Your task to perform on an android device: turn on the 24-hour format for clock Image 0: 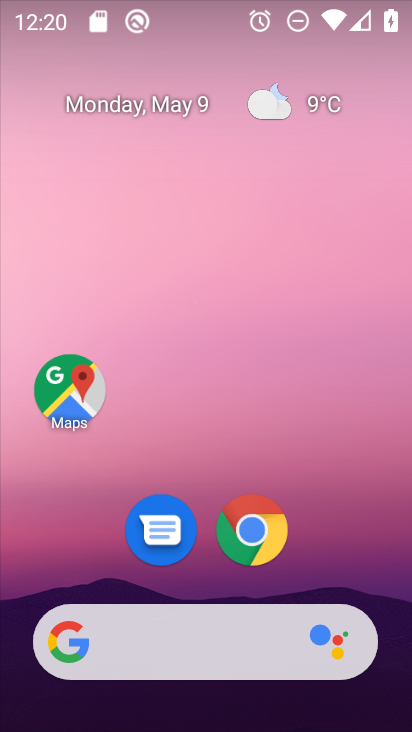
Step 0: drag from (187, 587) to (290, 83)
Your task to perform on an android device: turn on the 24-hour format for clock Image 1: 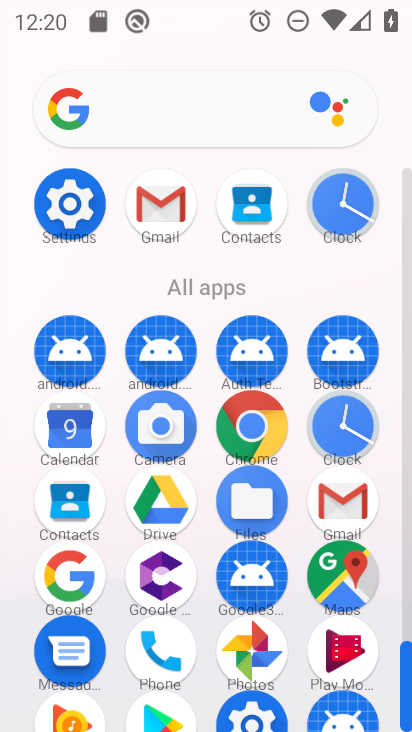
Step 1: click (341, 200)
Your task to perform on an android device: turn on the 24-hour format for clock Image 2: 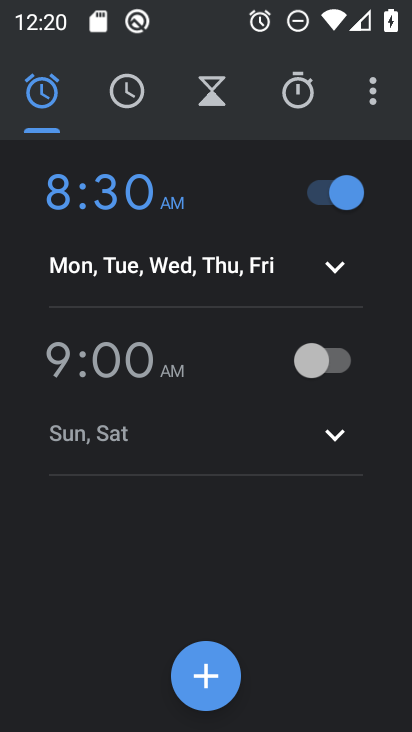
Step 2: click (394, 98)
Your task to perform on an android device: turn on the 24-hour format for clock Image 3: 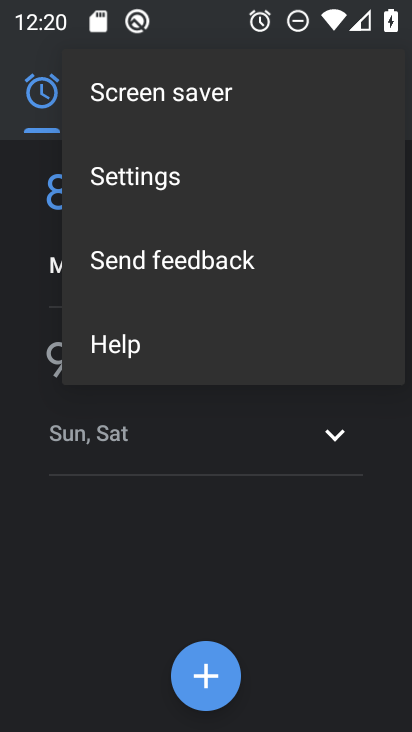
Step 3: click (273, 177)
Your task to perform on an android device: turn on the 24-hour format for clock Image 4: 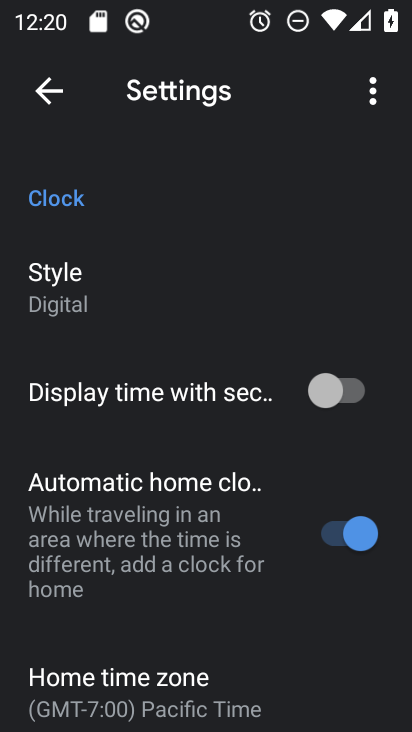
Step 4: drag from (163, 605) to (243, 218)
Your task to perform on an android device: turn on the 24-hour format for clock Image 5: 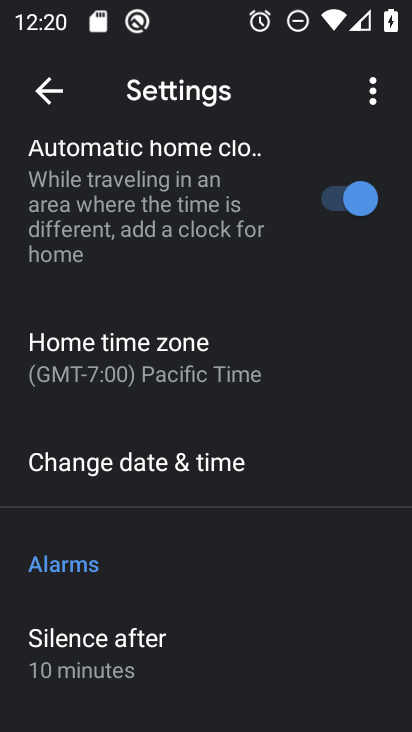
Step 5: drag from (127, 620) to (181, 313)
Your task to perform on an android device: turn on the 24-hour format for clock Image 6: 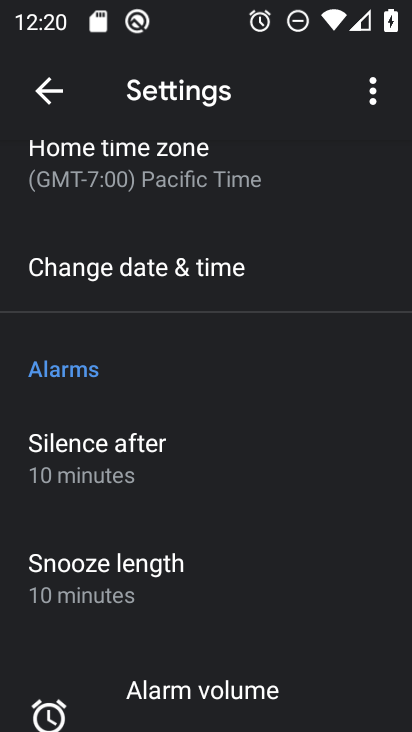
Step 6: drag from (129, 613) to (195, 278)
Your task to perform on an android device: turn on the 24-hour format for clock Image 7: 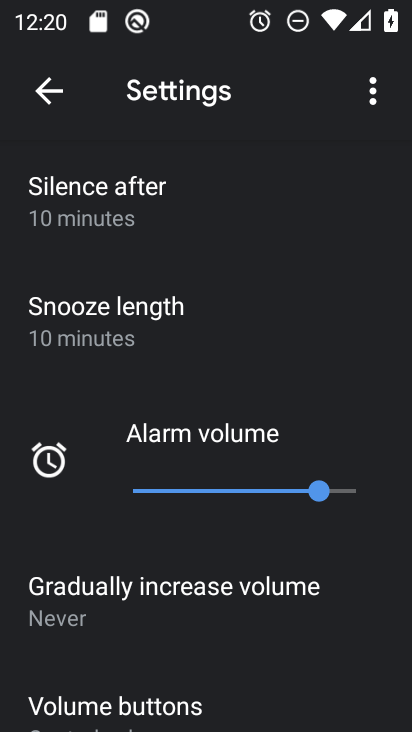
Step 7: drag from (260, 169) to (300, 710)
Your task to perform on an android device: turn on the 24-hour format for clock Image 8: 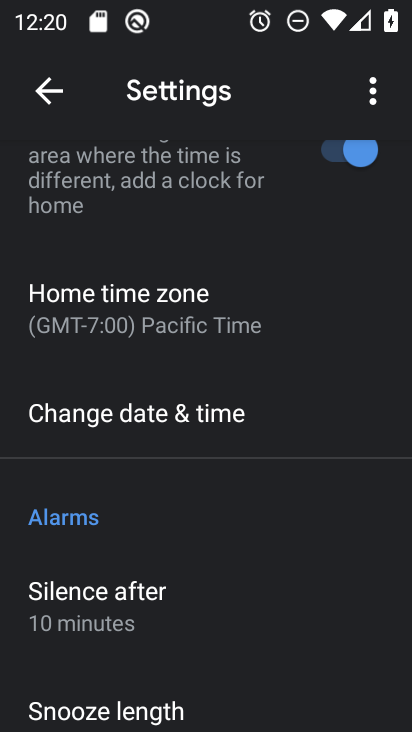
Step 8: click (215, 396)
Your task to perform on an android device: turn on the 24-hour format for clock Image 9: 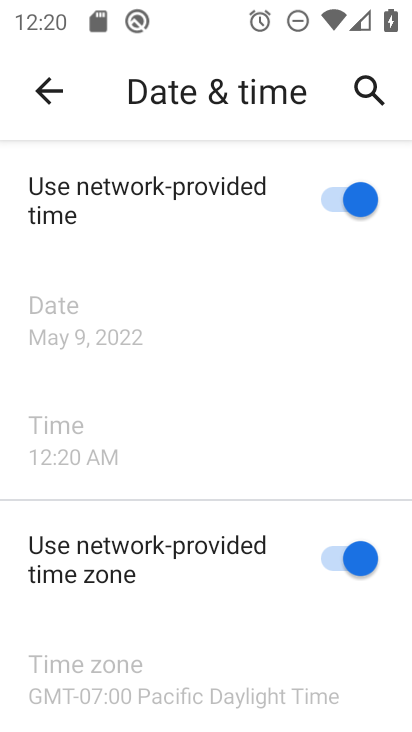
Step 9: drag from (151, 575) to (183, 195)
Your task to perform on an android device: turn on the 24-hour format for clock Image 10: 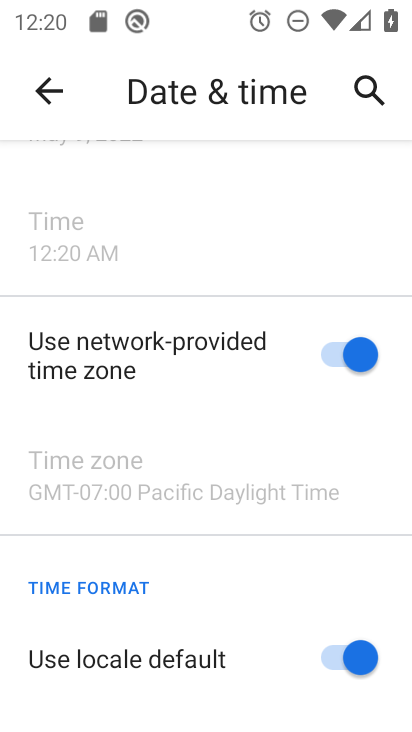
Step 10: drag from (134, 572) to (215, 221)
Your task to perform on an android device: turn on the 24-hour format for clock Image 11: 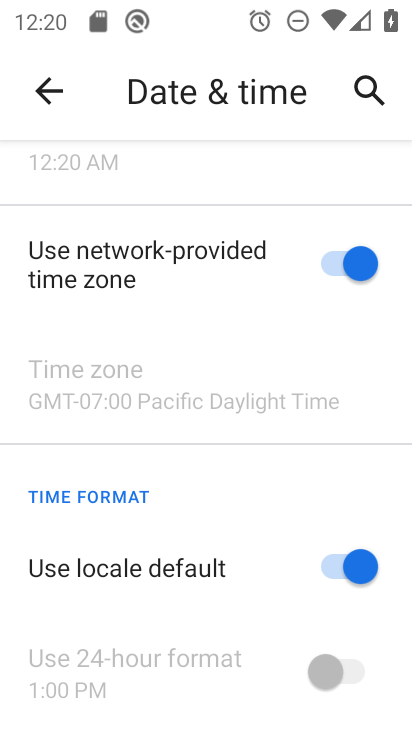
Step 11: click (334, 583)
Your task to perform on an android device: turn on the 24-hour format for clock Image 12: 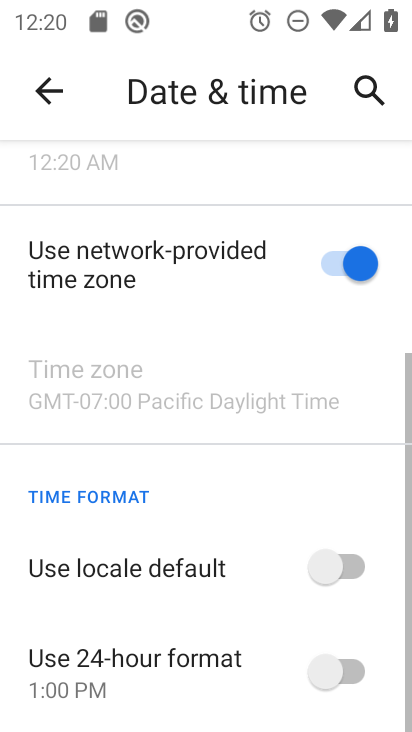
Step 12: click (348, 682)
Your task to perform on an android device: turn on the 24-hour format for clock Image 13: 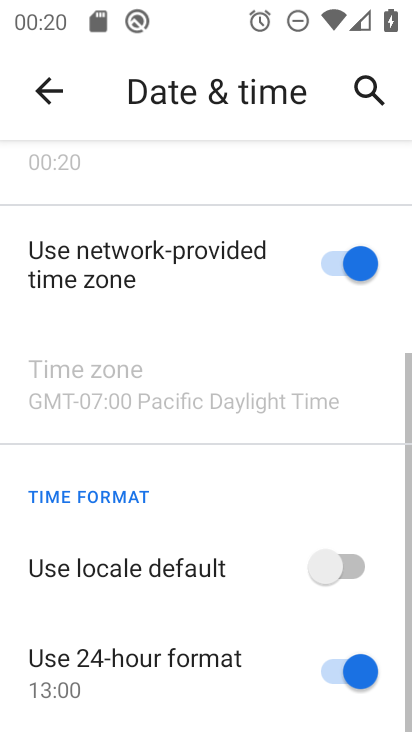
Step 13: task complete